Your task to perform on an android device: toggle notifications settings in the gmail app Image 0: 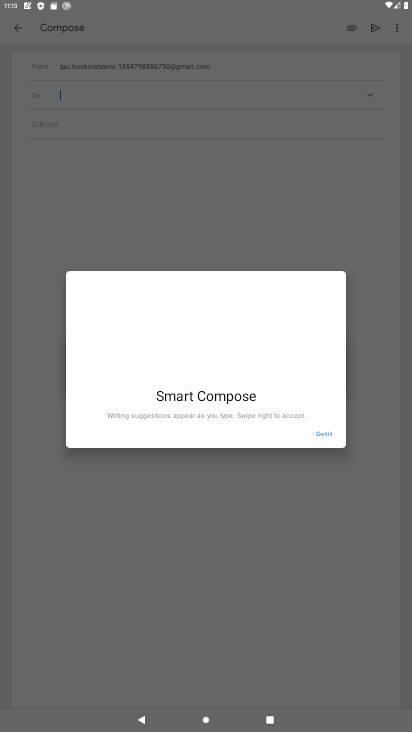
Step 0: press home button
Your task to perform on an android device: toggle notifications settings in the gmail app Image 1: 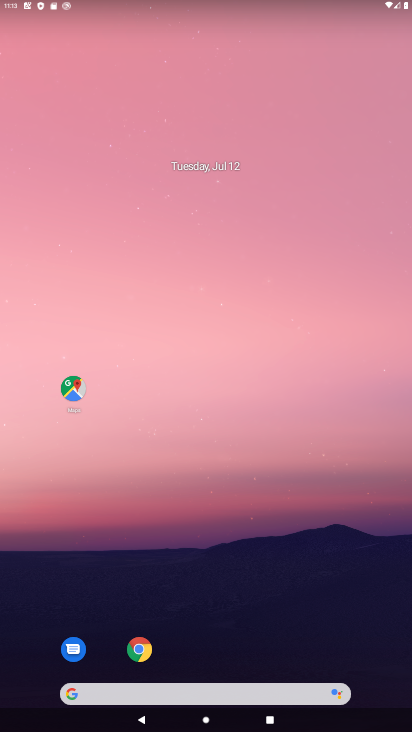
Step 1: drag from (302, 606) to (283, 502)
Your task to perform on an android device: toggle notifications settings in the gmail app Image 2: 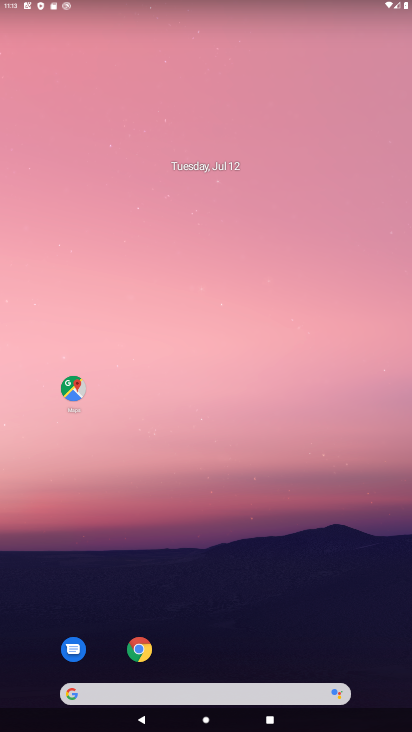
Step 2: drag from (288, 622) to (195, 47)
Your task to perform on an android device: toggle notifications settings in the gmail app Image 3: 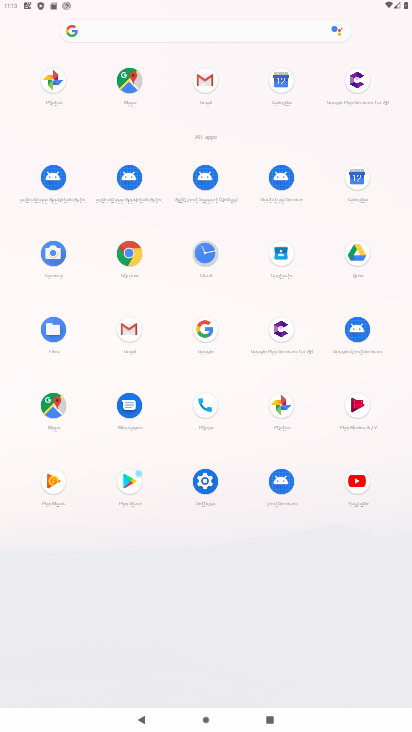
Step 3: click (128, 343)
Your task to perform on an android device: toggle notifications settings in the gmail app Image 4: 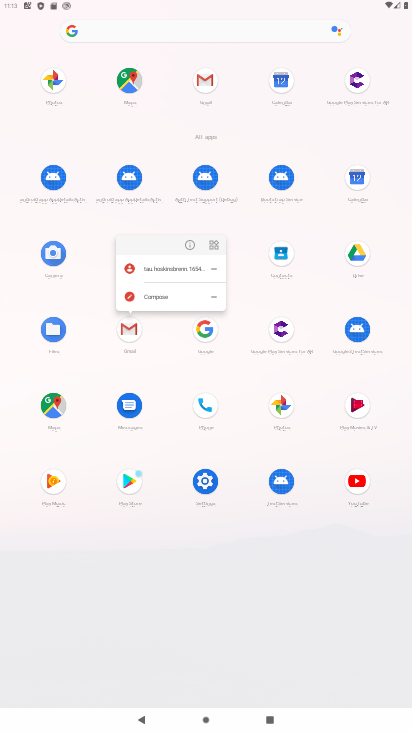
Step 4: click (193, 251)
Your task to perform on an android device: toggle notifications settings in the gmail app Image 5: 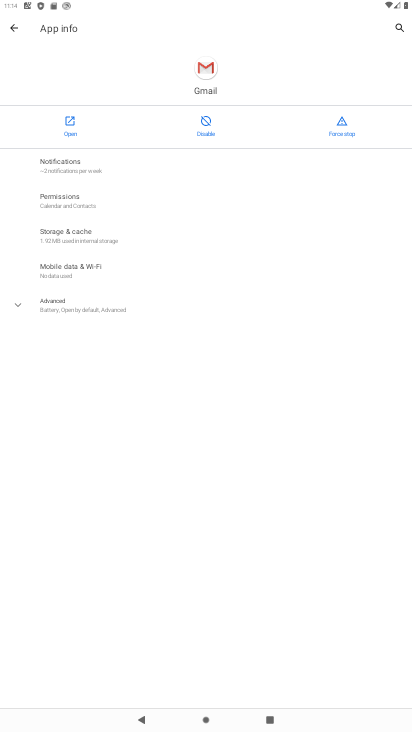
Step 5: click (103, 178)
Your task to perform on an android device: toggle notifications settings in the gmail app Image 6: 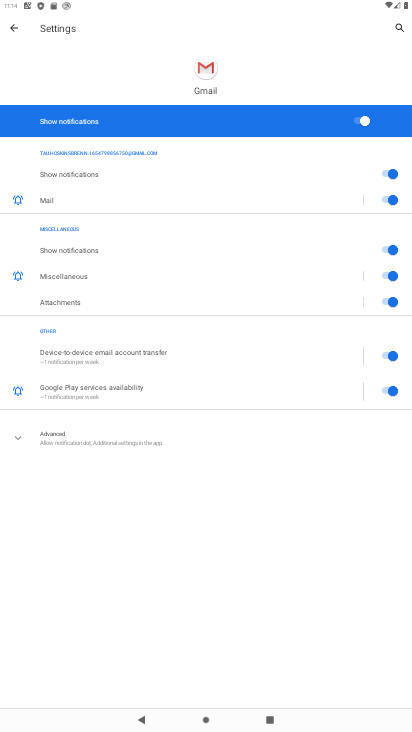
Step 6: click (242, 127)
Your task to perform on an android device: toggle notifications settings in the gmail app Image 7: 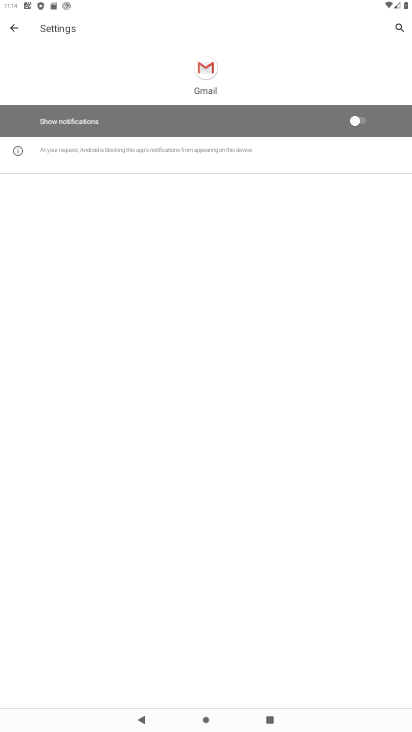
Step 7: task complete